Your task to perform on an android device: toggle notifications settings in the gmail app Image 0: 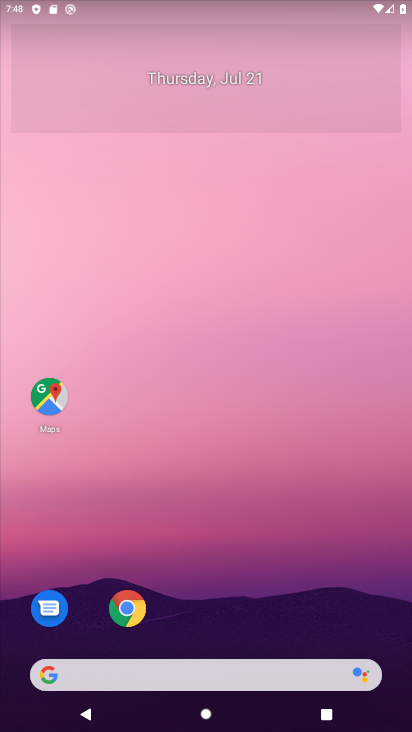
Step 0: drag from (21, 701) to (323, 150)
Your task to perform on an android device: toggle notifications settings in the gmail app Image 1: 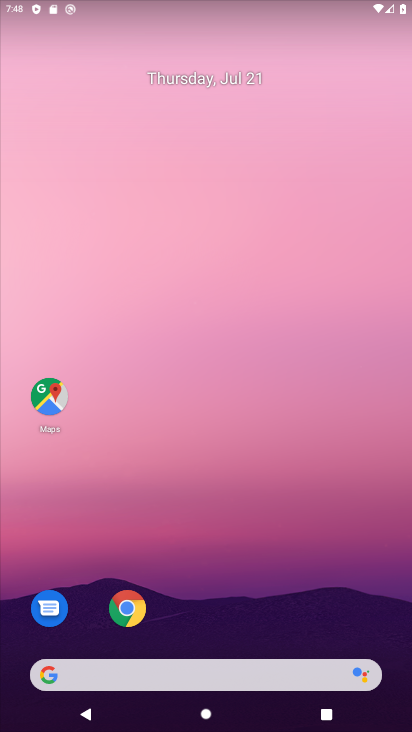
Step 1: drag from (37, 686) to (294, 258)
Your task to perform on an android device: toggle notifications settings in the gmail app Image 2: 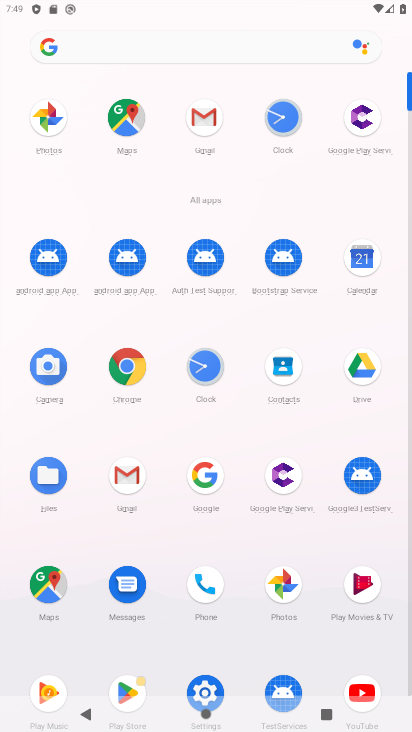
Step 2: click (198, 116)
Your task to perform on an android device: toggle notifications settings in the gmail app Image 3: 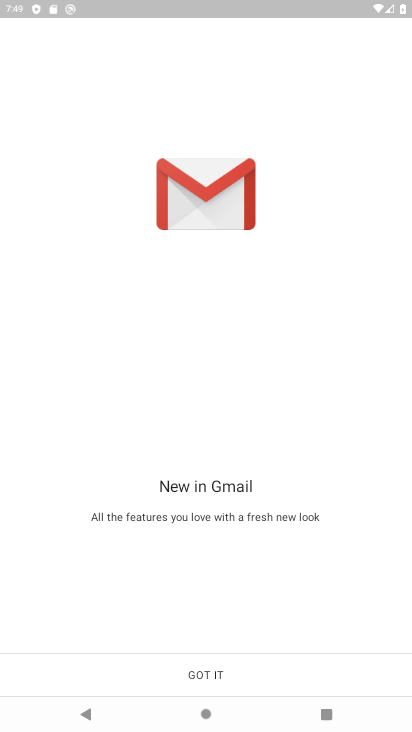
Step 3: click (220, 673)
Your task to perform on an android device: toggle notifications settings in the gmail app Image 4: 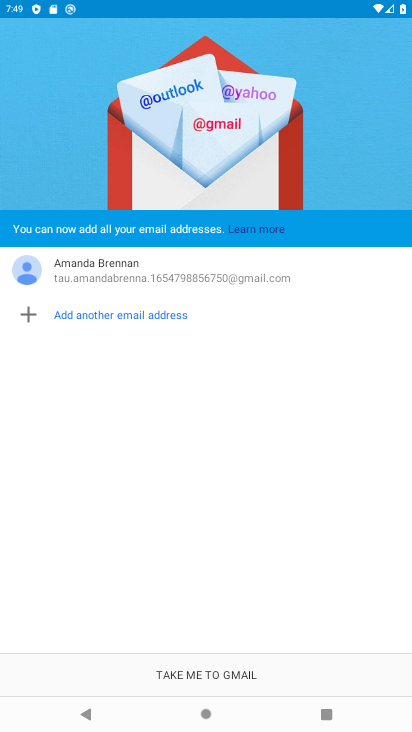
Step 4: click (177, 654)
Your task to perform on an android device: toggle notifications settings in the gmail app Image 5: 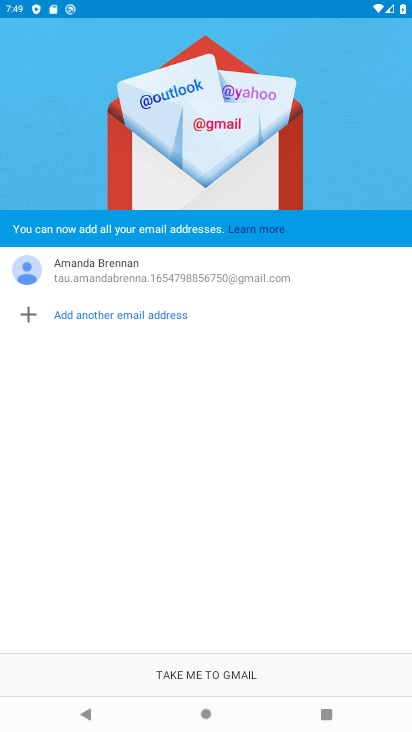
Step 5: click (176, 669)
Your task to perform on an android device: toggle notifications settings in the gmail app Image 6: 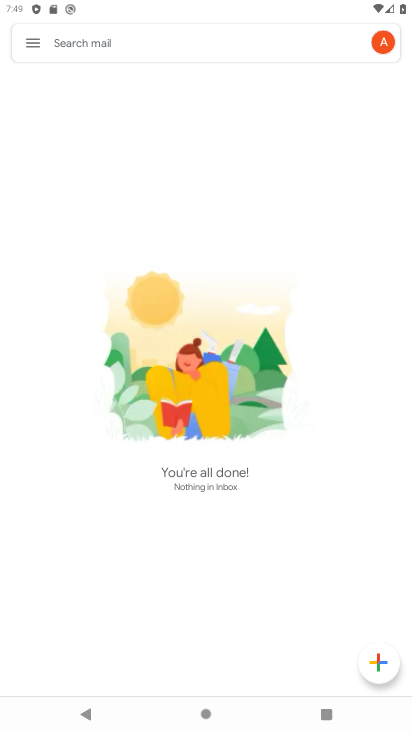
Step 6: click (31, 50)
Your task to perform on an android device: toggle notifications settings in the gmail app Image 7: 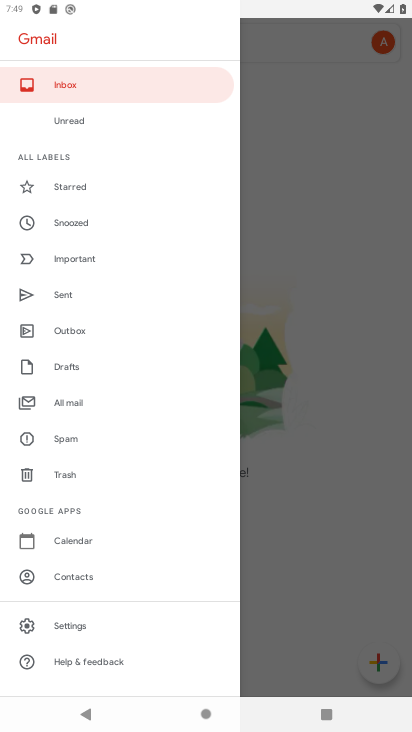
Step 7: click (76, 624)
Your task to perform on an android device: toggle notifications settings in the gmail app Image 8: 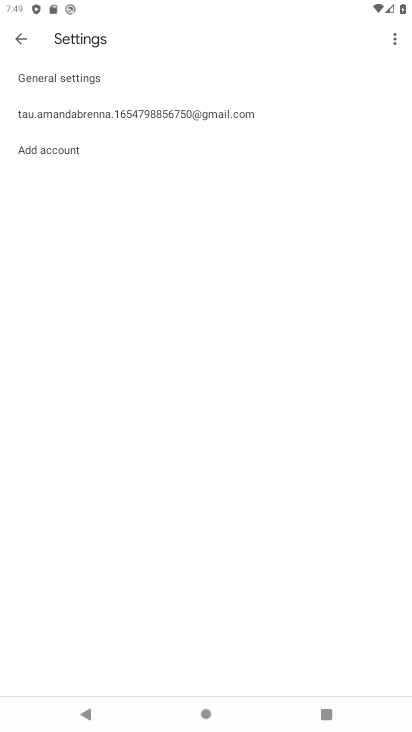
Step 8: click (125, 113)
Your task to perform on an android device: toggle notifications settings in the gmail app Image 9: 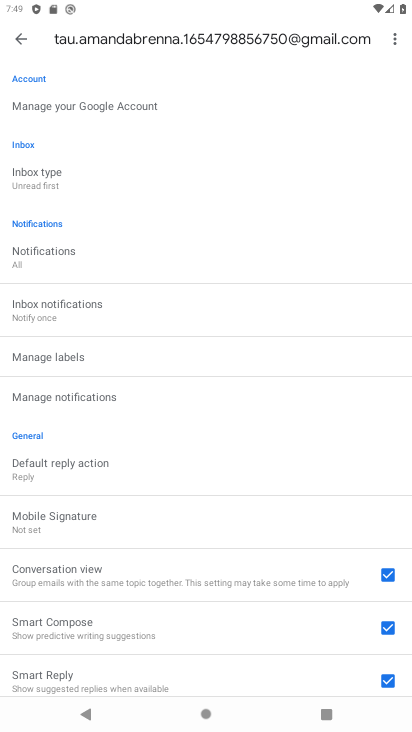
Step 9: click (46, 261)
Your task to perform on an android device: toggle notifications settings in the gmail app Image 10: 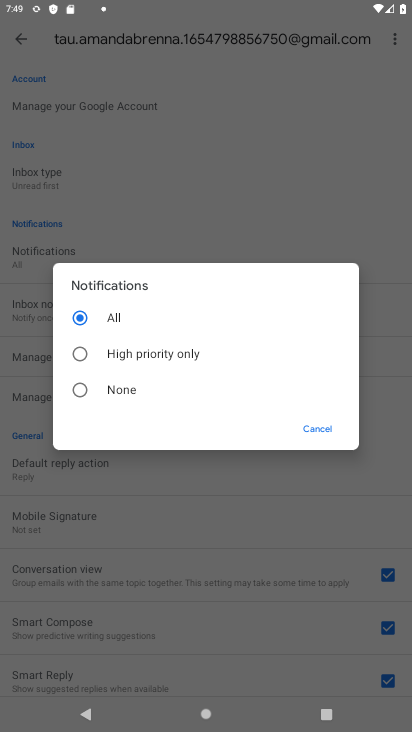
Step 10: task complete